Your task to perform on an android device: turn off airplane mode Image 0: 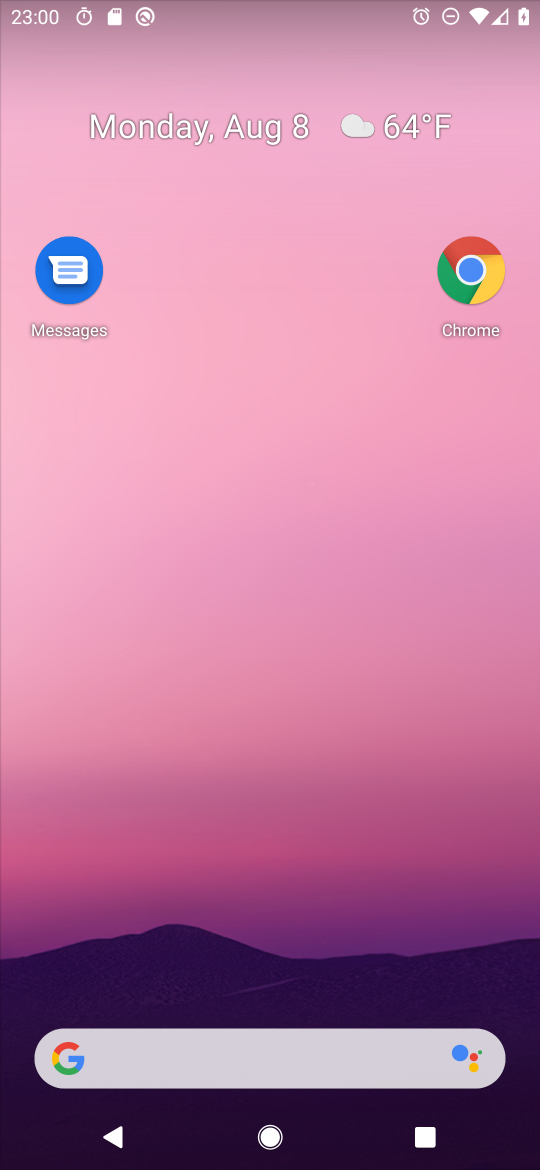
Step 0: drag from (248, 960) to (343, 255)
Your task to perform on an android device: turn off airplane mode Image 1: 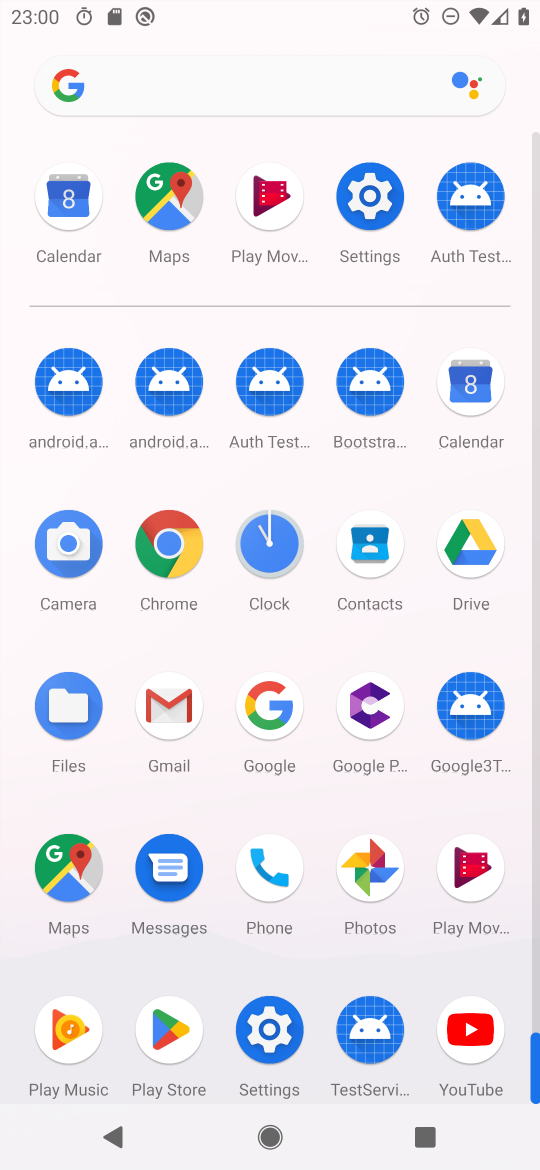
Step 1: drag from (337, 933) to (425, 405)
Your task to perform on an android device: turn off airplane mode Image 2: 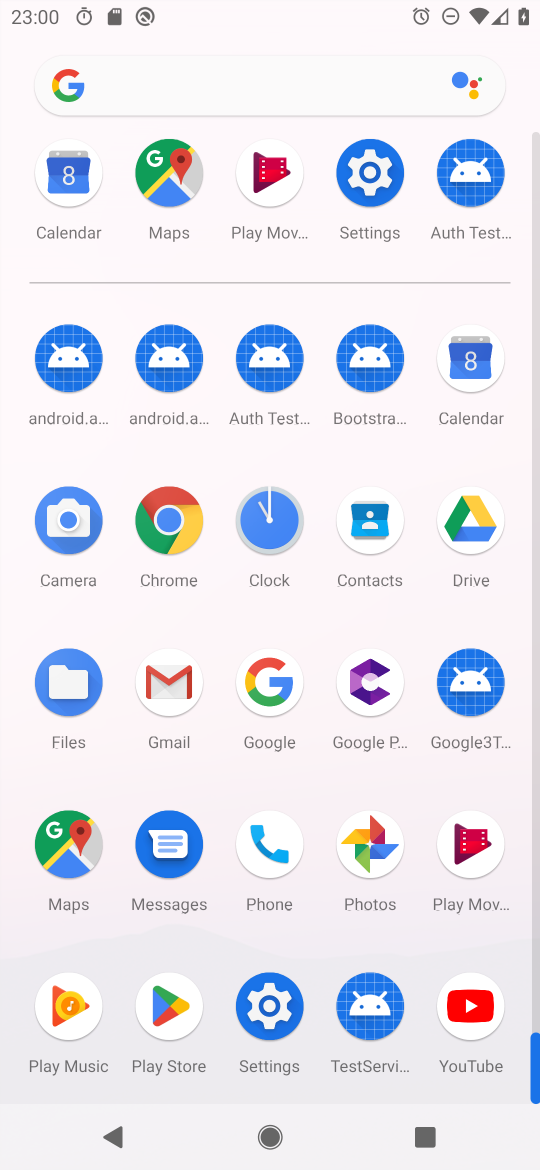
Step 2: drag from (312, 892) to (370, 470)
Your task to perform on an android device: turn off airplane mode Image 3: 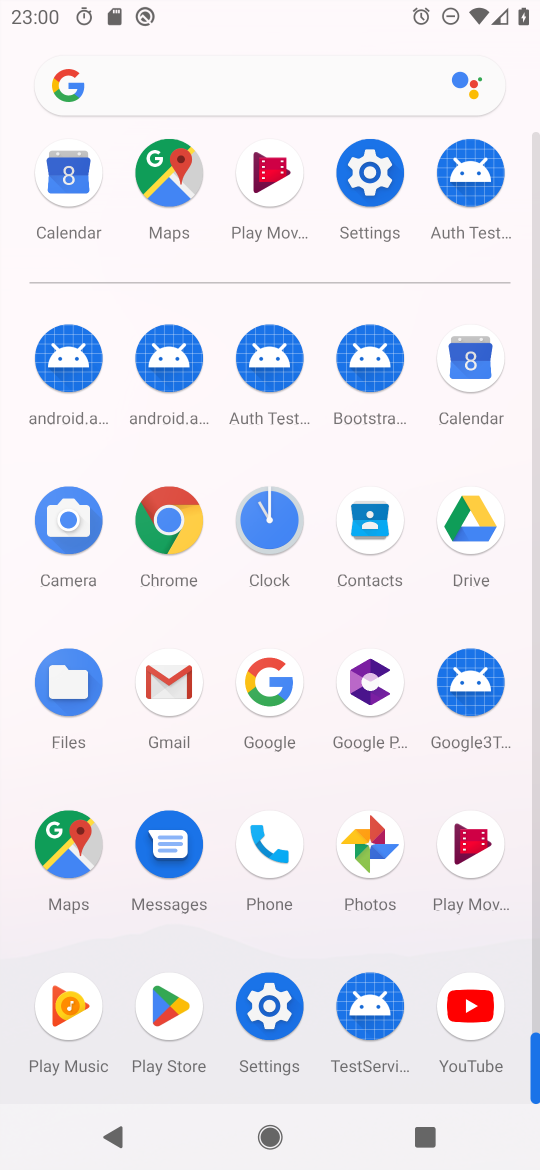
Step 3: drag from (337, 866) to (337, 736)
Your task to perform on an android device: turn off airplane mode Image 4: 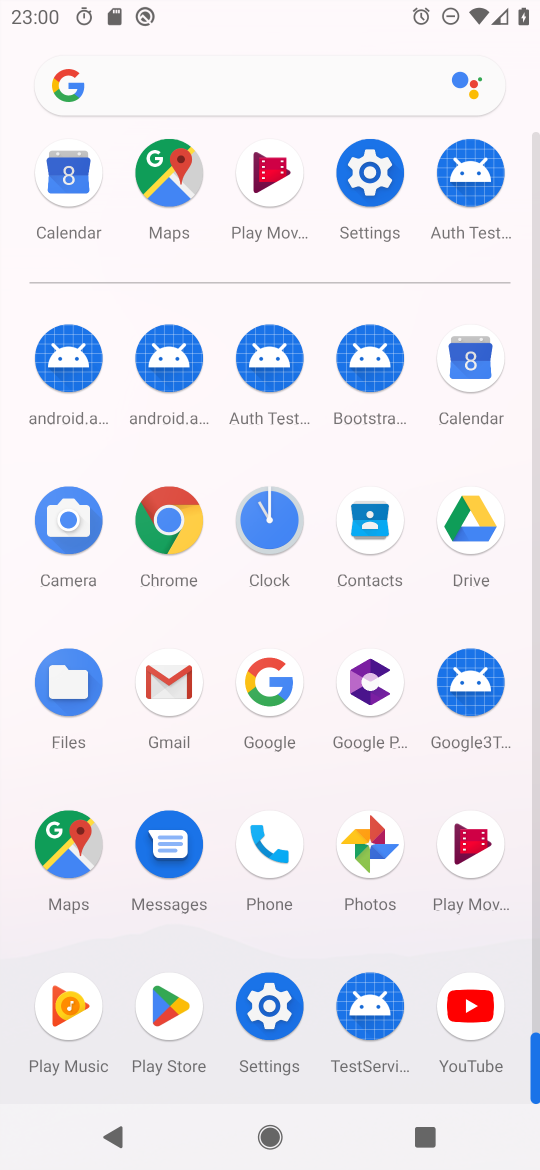
Step 4: click (259, 994)
Your task to perform on an android device: turn off airplane mode Image 5: 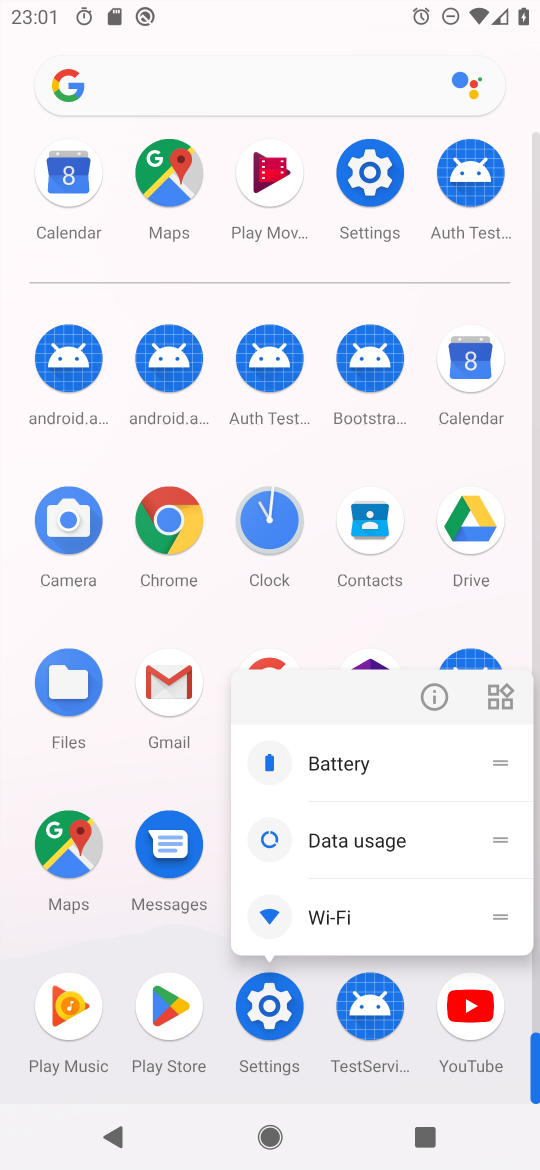
Step 5: click (440, 700)
Your task to perform on an android device: turn off airplane mode Image 6: 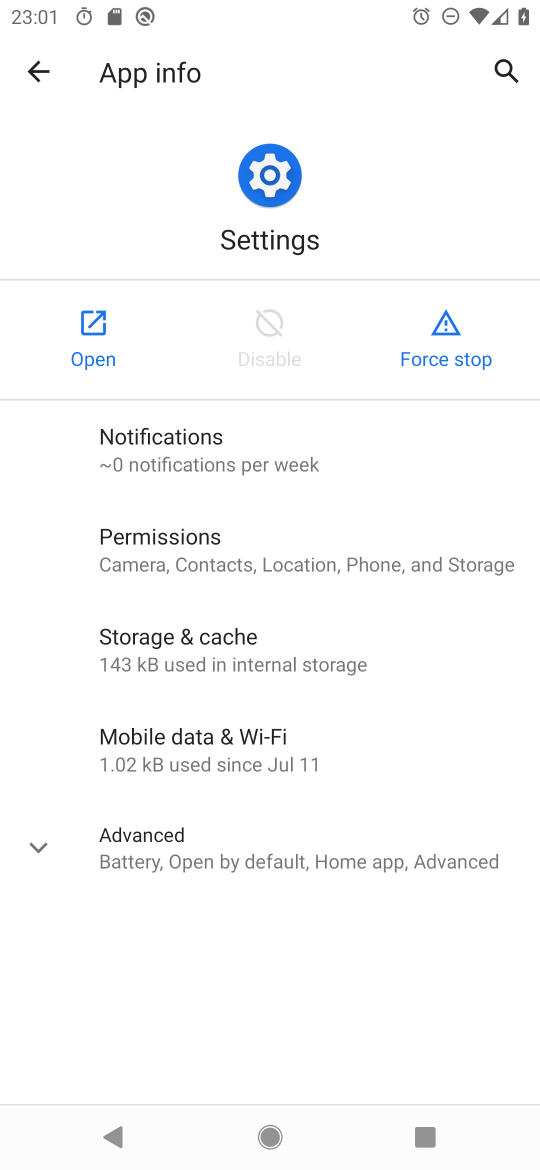
Step 6: click (87, 335)
Your task to perform on an android device: turn off airplane mode Image 7: 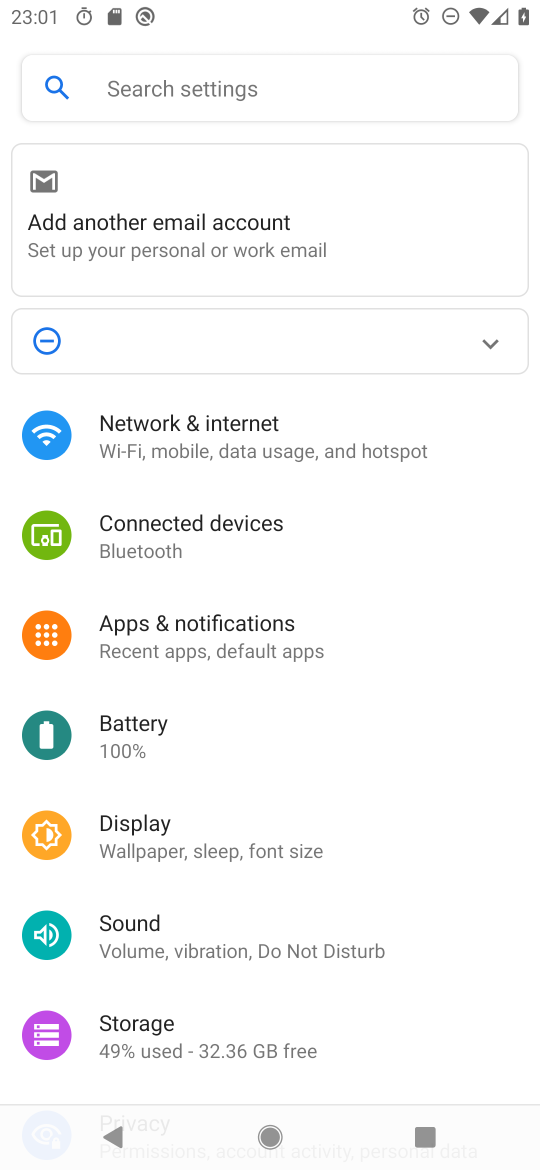
Step 7: click (224, 428)
Your task to perform on an android device: turn off airplane mode Image 8: 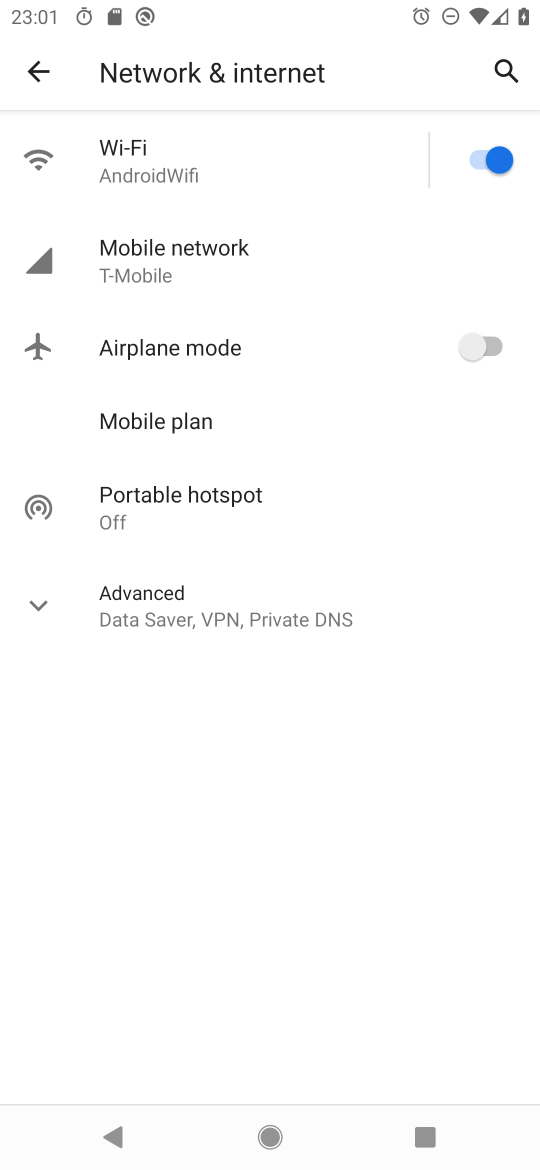
Step 8: task complete